Your task to perform on an android device: Do I have any events tomorrow? Image 0: 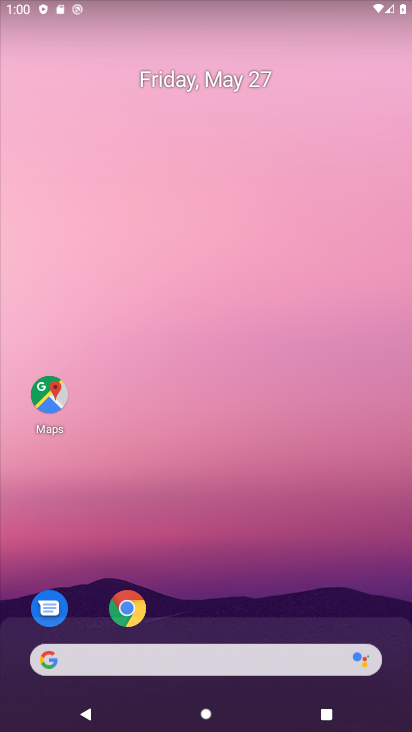
Step 0: press home button
Your task to perform on an android device: Do I have any events tomorrow? Image 1: 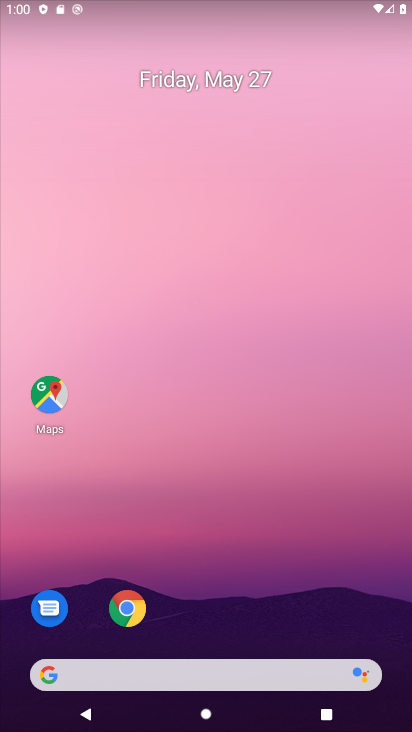
Step 1: drag from (209, 668) to (349, 239)
Your task to perform on an android device: Do I have any events tomorrow? Image 2: 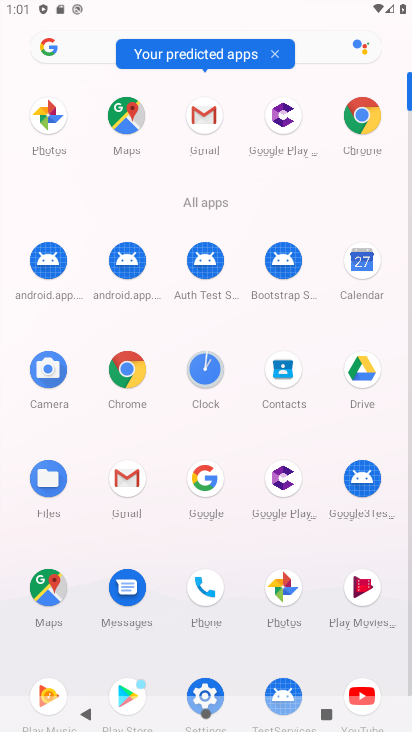
Step 2: click (357, 265)
Your task to perform on an android device: Do I have any events tomorrow? Image 3: 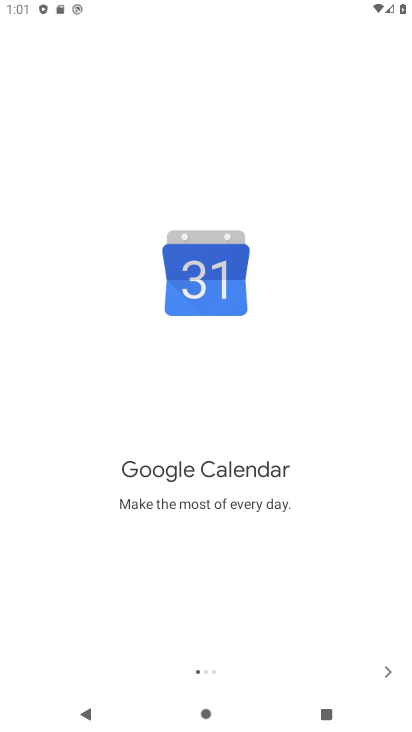
Step 3: click (385, 669)
Your task to perform on an android device: Do I have any events tomorrow? Image 4: 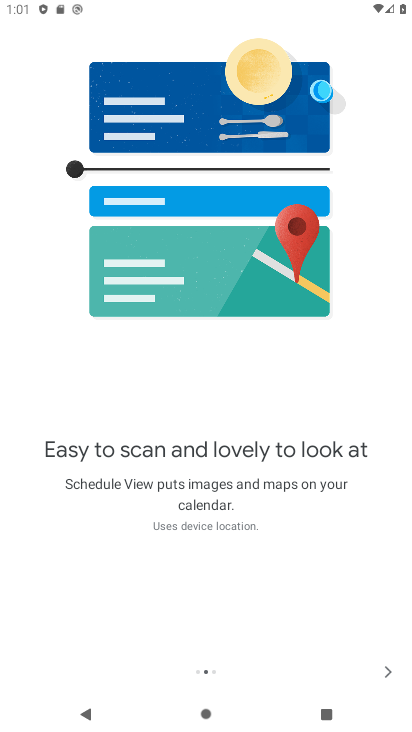
Step 4: click (385, 669)
Your task to perform on an android device: Do I have any events tomorrow? Image 5: 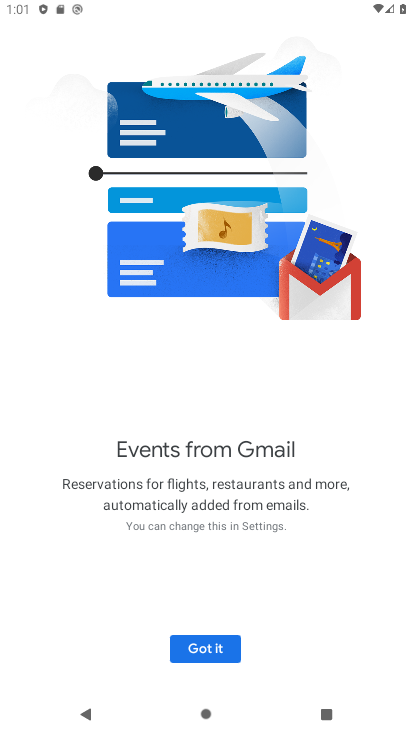
Step 5: click (187, 653)
Your task to perform on an android device: Do I have any events tomorrow? Image 6: 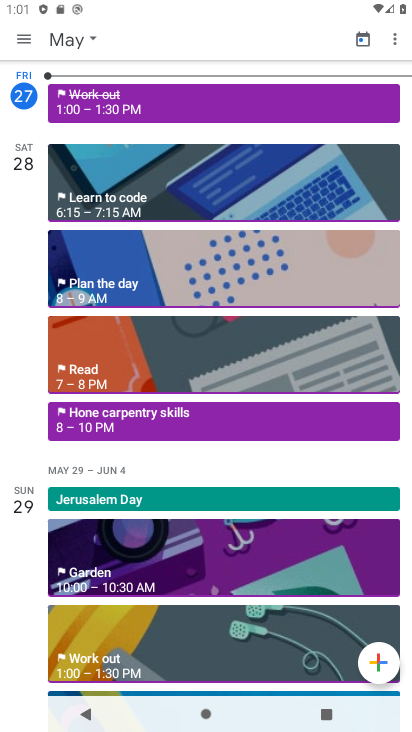
Step 6: click (65, 40)
Your task to perform on an android device: Do I have any events tomorrow? Image 7: 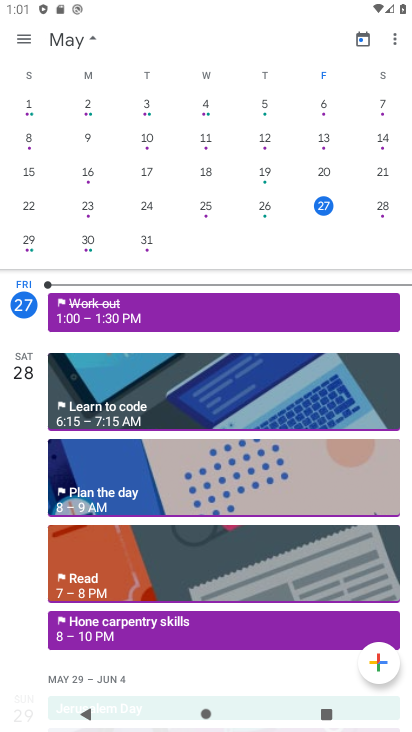
Step 7: click (383, 207)
Your task to perform on an android device: Do I have any events tomorrow? Image 8: 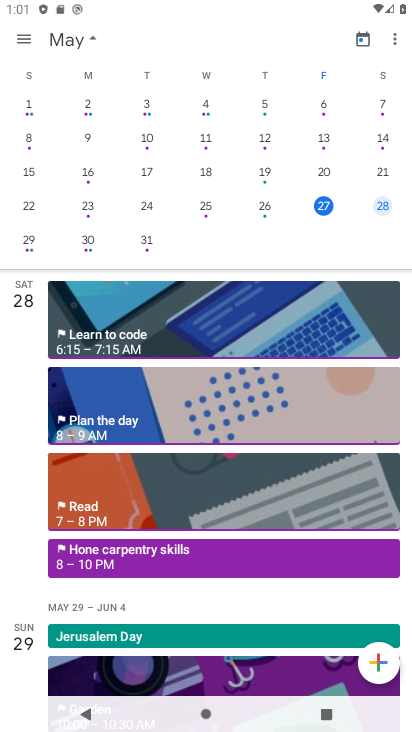
Step 8: click (26, 40)
Your task to perform on an android device: Do I have any events tomorrow? Image 9: 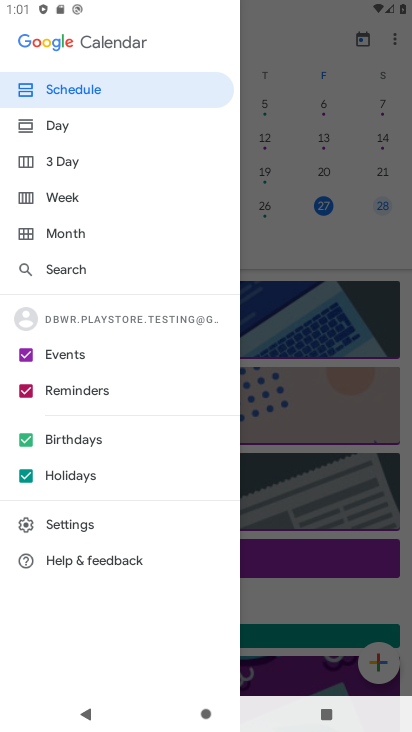
Step 9: click (75, 87)
Your task to perform on an android device: Do I have any events tomorrow? Image 10: 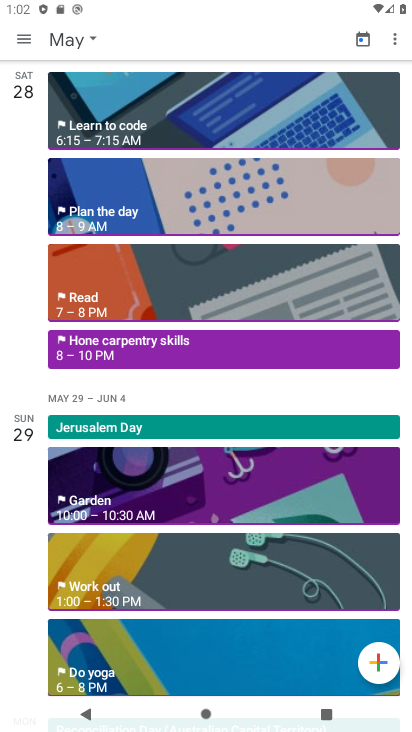
Step 10: click (107, 345)
Your task to perform on an android device: Do I have any events tomorrow? Image 11: 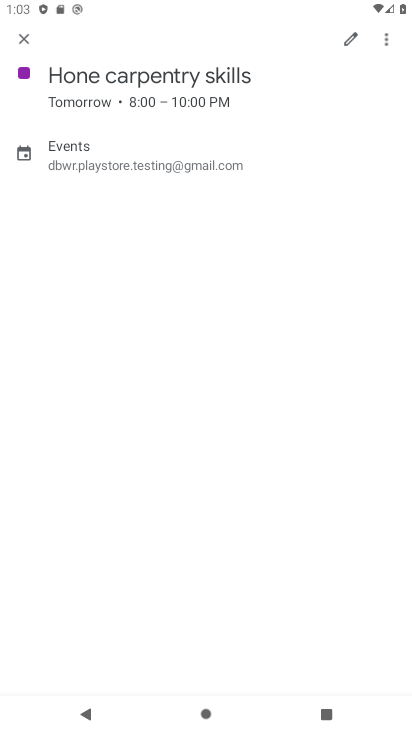
Step 11: task complete